Your task to perform on an android device: Go to Google maps Image 0: 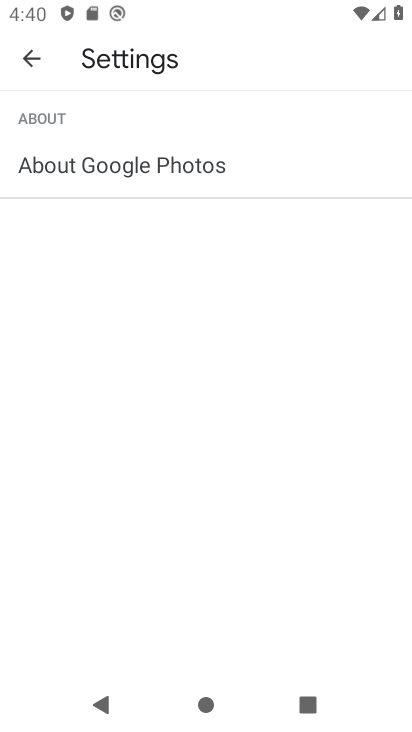
Step 0: press home button
Your task to perform on an android device: Go to Google maps Image 1: 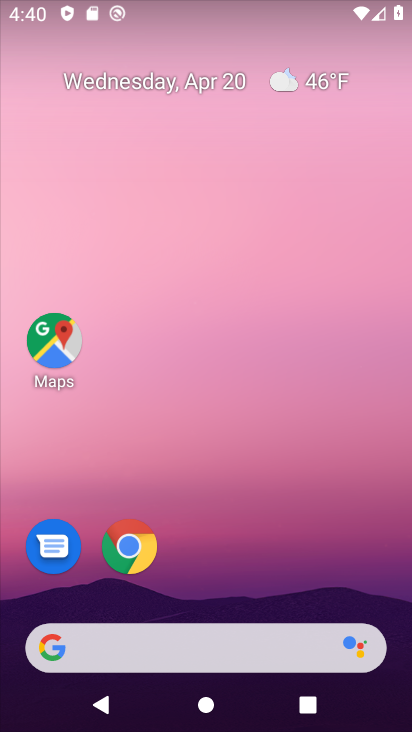
Step 1: drag from (305, 560) to (244, 107)
Your task to perform on an android device: Go to Google maps Image 2: 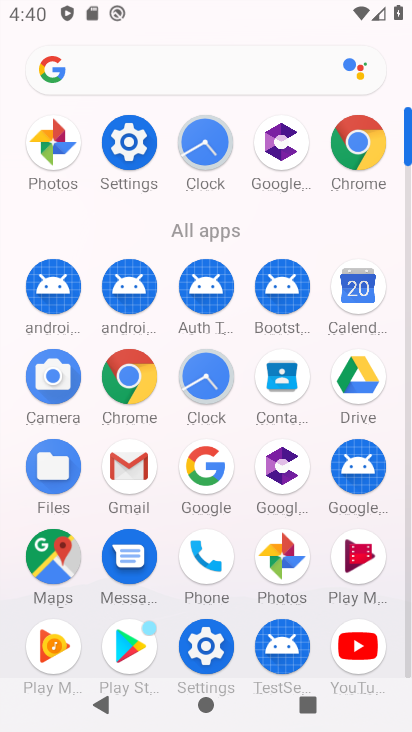
Step 2: click (58, 553)
Your task to perform on an android device: Go to Google maps Image 3: 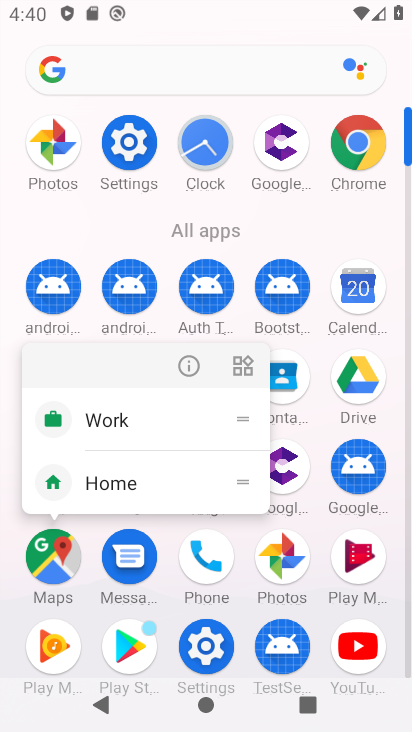
Step 3: click (58, 553)
Your task to perform on an android device: Go to Google maps Image 4: 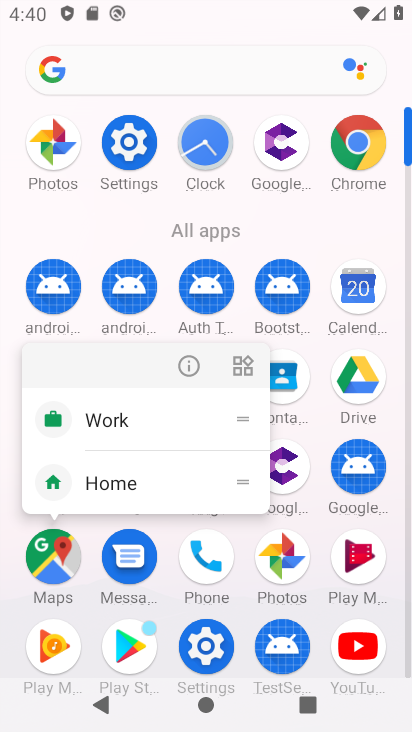
Step 4: click (58, 553)
Your task to perform on an android device: Go to Google maps Image 5: 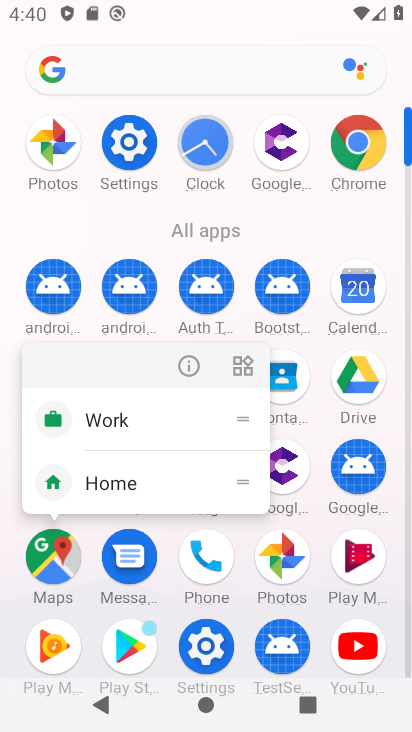
Step 5: click (58, 553)
Your task to perform on an android device: Go to Google maps Image 6: 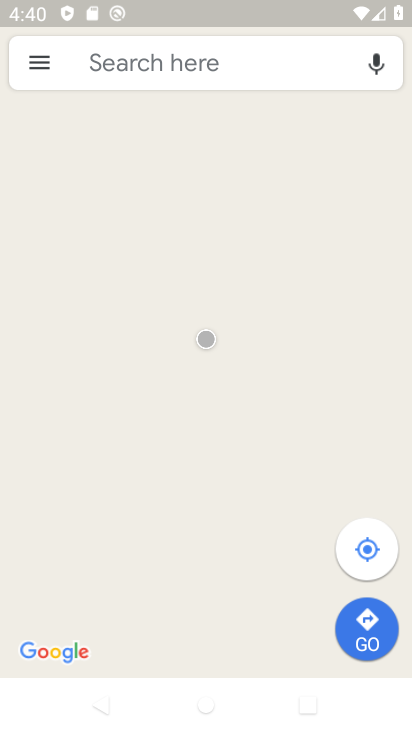
Step 6: task complete